Your task to perform on an android device: set default search engine in the chrome app Image 0: 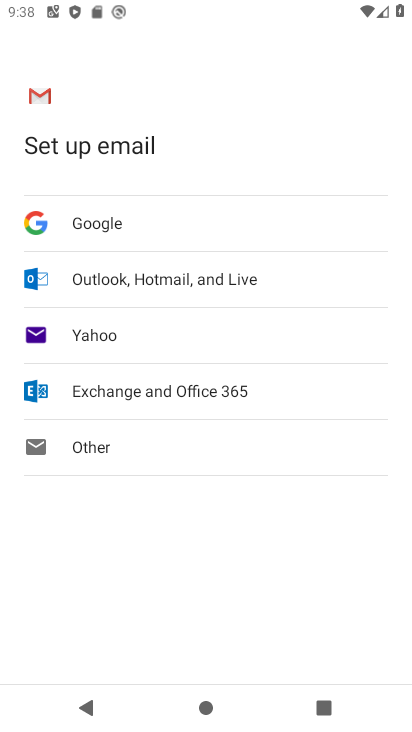
Step 0: press back button
Your task to perform on an android device: set default search engine in the chrome app Image 1: 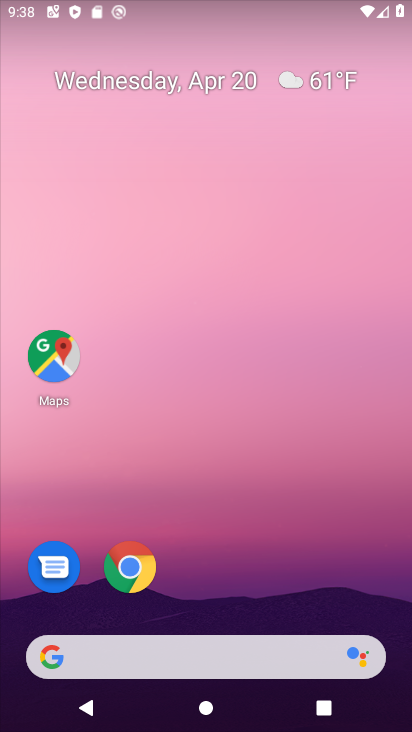
Step 1: click (140, 568)
Your task to perform on an android device: set default search engine in the chrome app Image 2: 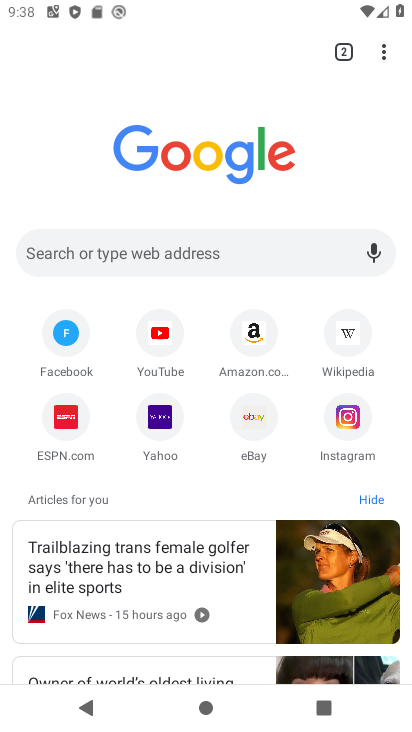
Step 2: drag from (385, 52) to (241, 476)
Your task to perform on an android device: set default search engine in the chrome app Image 3: 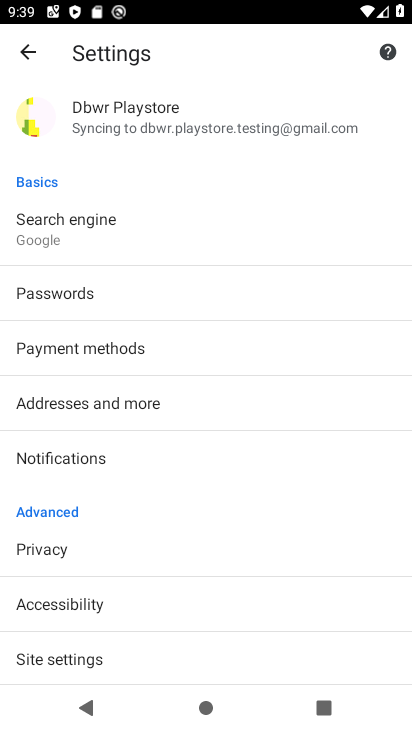
Step 3: click (102, 219)
Your task to perform on an android device: set default search engine in the chrome app Image 4: 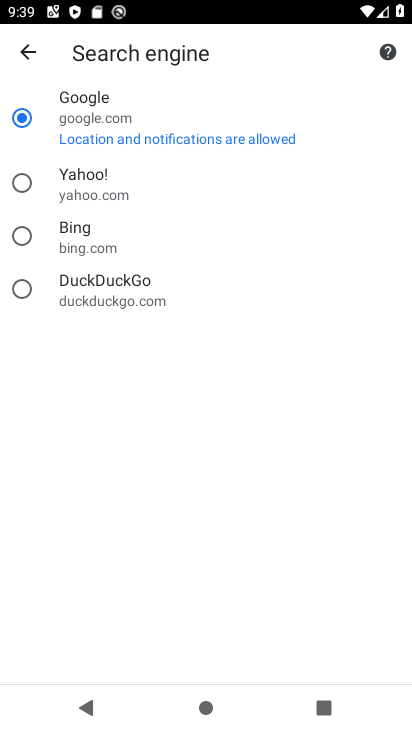
Step 4: click (19, 172)
Your task to perform on an android device: set default search engine in the chrome app Image 5: 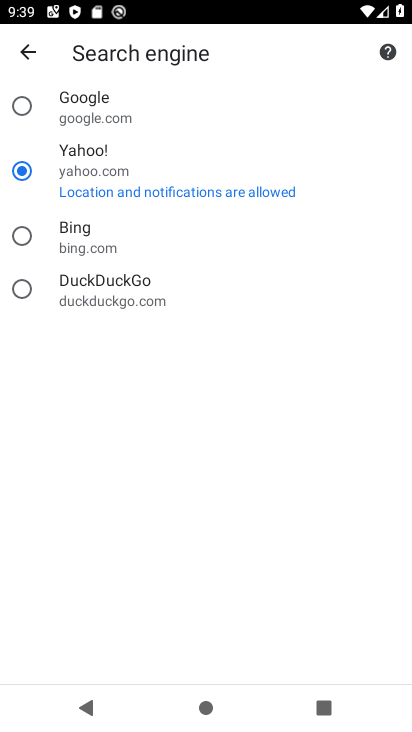
Step 5: task complete